Your task to perform on an android device: open a bookmark in the chrome app Image 0: 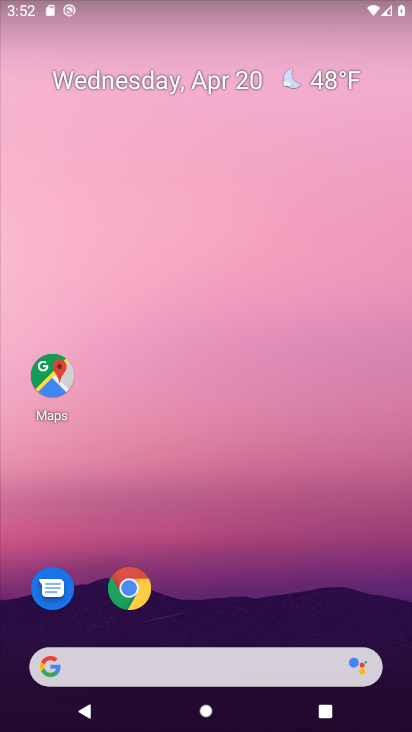
Step 0: drag from (270, 612) to (384, 180)
Your task to perform on an android device: open a bookmark in the chrome app Image 1: 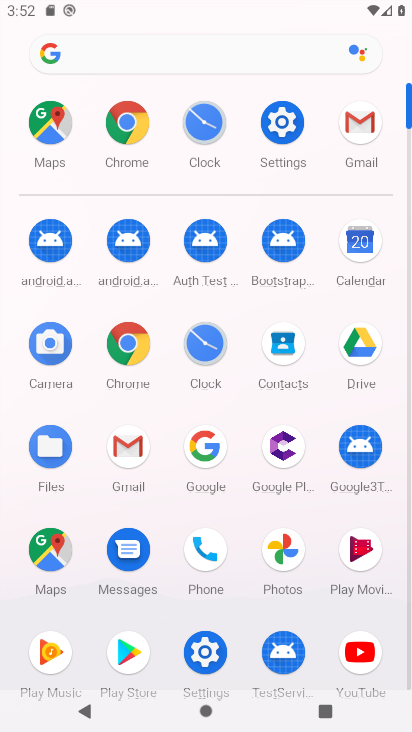
Step 1: click (131, 347)
Your task to perform on an android device: open a bookmark in the chrome app Image 2: 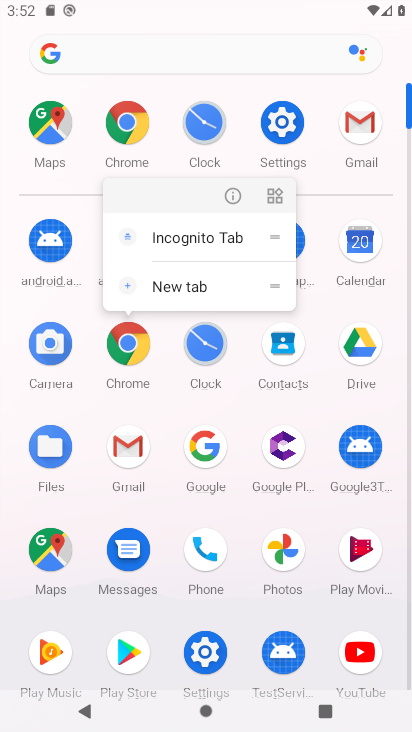
Step 2: click (119, 340)
Your task to perform on an android device: open a bookmark in the chrome app Image 3: 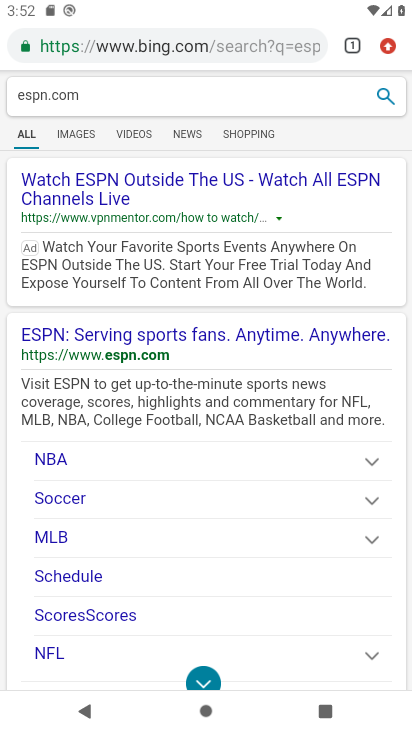
Step 3: click (389, 47)
Your task to perform on an android device: open a bookmark in the chrome app Image 4: 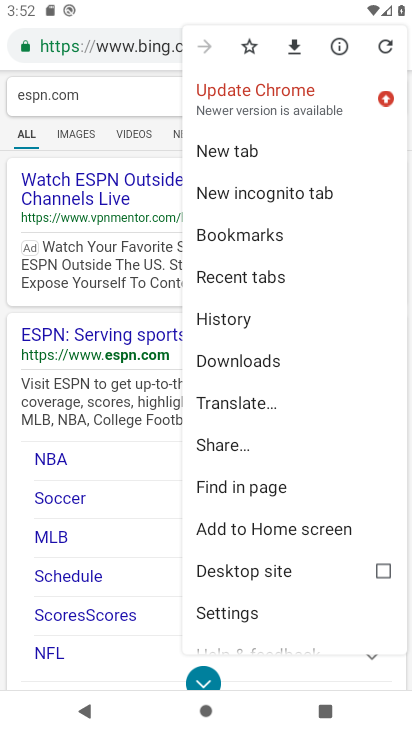
Step 4: click (257, 223)
Your task to perform on an android device: open a bookmark in the chrome app Image 5: 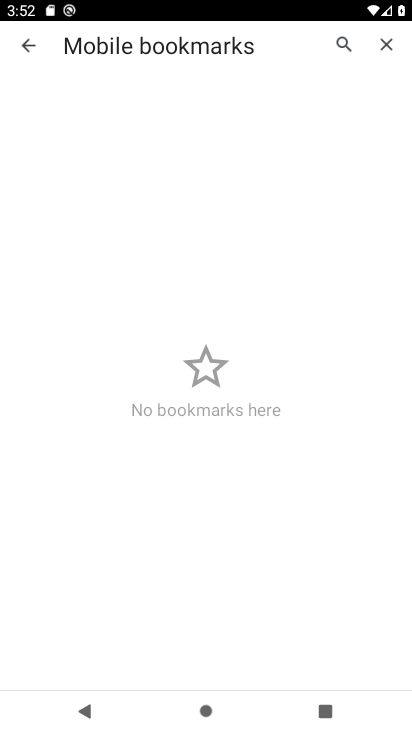
Step 5: task complete